Your task to perform on an android device: Clear all items from cart on newegg. Image 0: 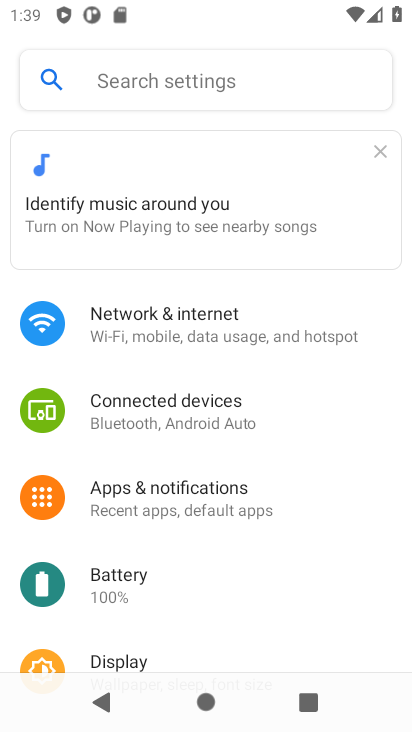
Step 0: press home button
Your task to perform on an android device: Clear all items from cart on newegg. Image 1: 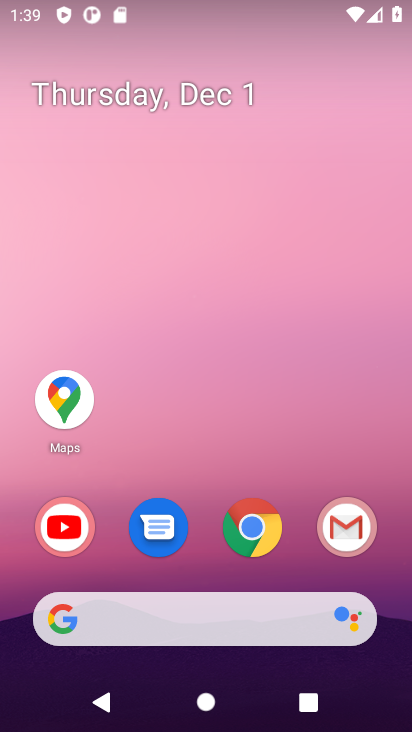
Step 1: click (259, 533)
Your task to perform on an android device: Clear all items from cart on newegg. Image 2: 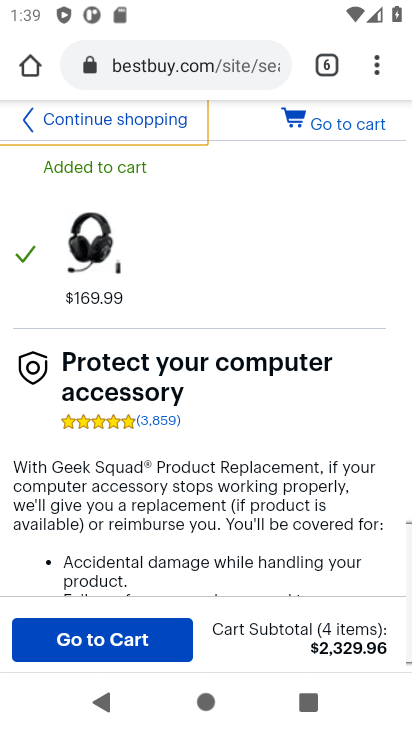
Step 2: click (167, 68)
Your task to perform on an android device: Clear all items from cart on newegg. Image 3: 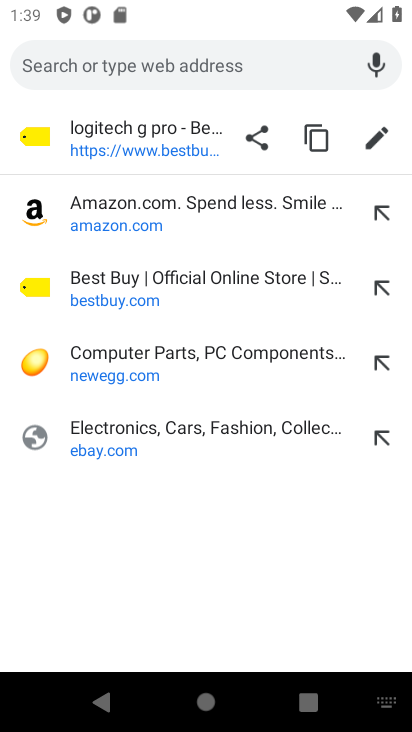
Step 3: click (114, 365)
Your task to perform on an android device: Clear all items from cart on newegg. Image 4: 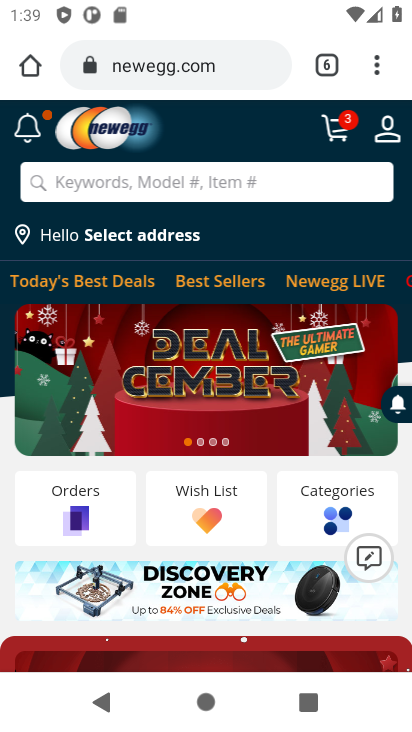
Step 4: click (341, 128)
Your task to perform on an android device: Clear all items from cart on newegg. Image 5: 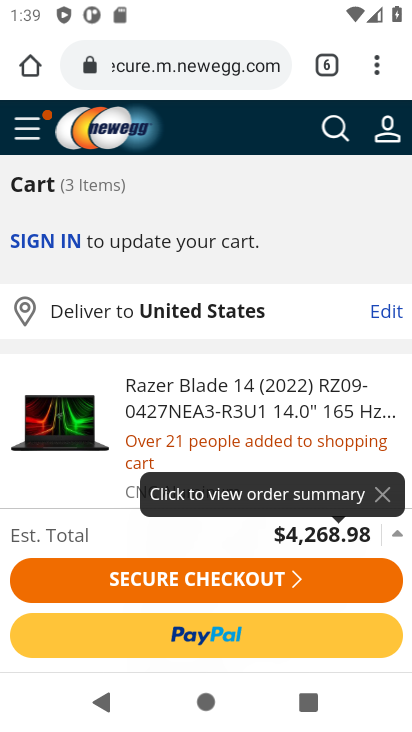
Step 5: drag from (295, 380) to (279, 245)
Your task to perform on an android device: Clear all items from cart on newegg. Image 6: 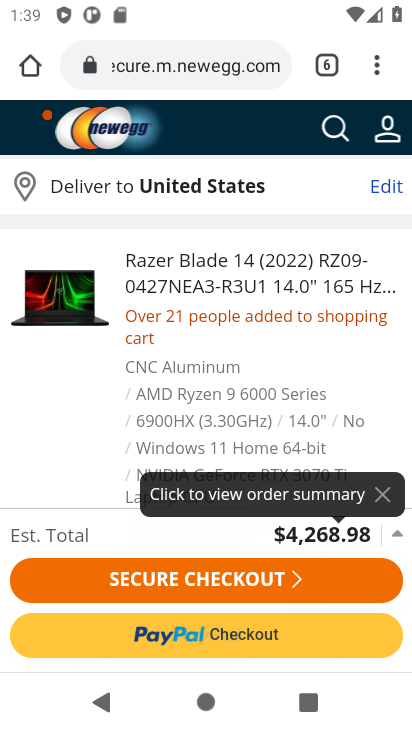
Step 6: drag from (120, 440) to (116, 231)
Your task to perform on an android device: Clear all items from cart on newegg. Image 7: 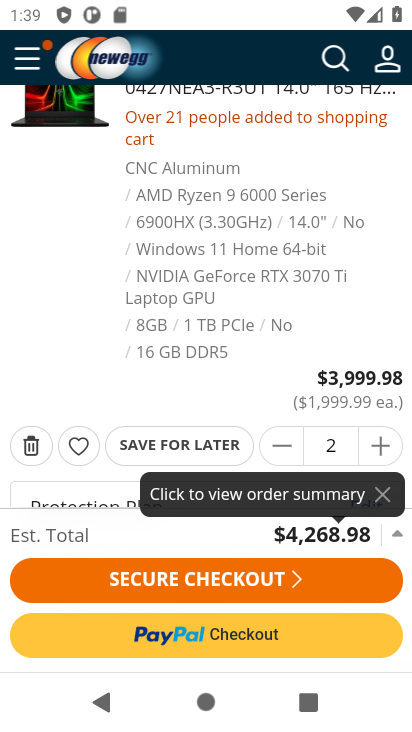
Step 7: click (28, 440)
Your task to perform on an android device: Clear all items from cart on newegg. Image 8: 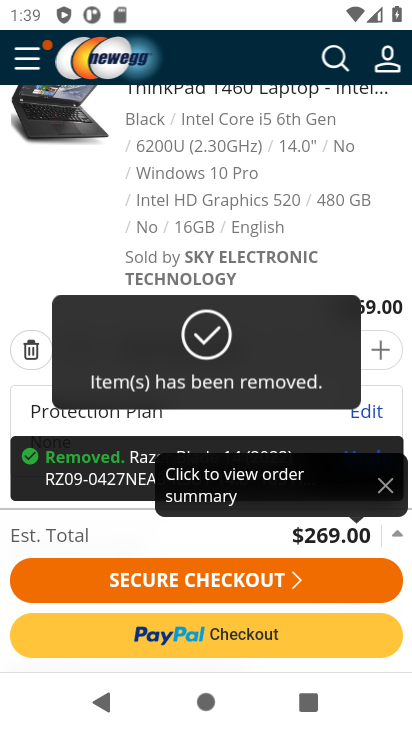
Step 8: click (27, 346)
Your task to perform on an android device: Clear all items from cart on newegg. Image 9: 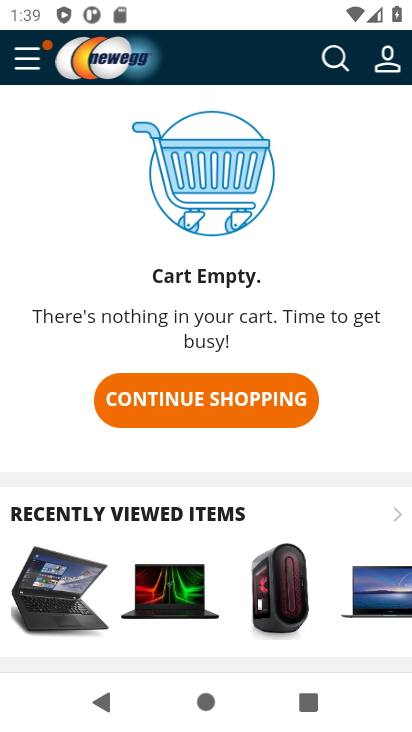
Step 9: task complete